Your task to perform on an android device: Search for Mexican restaurants on Maps Image 0: 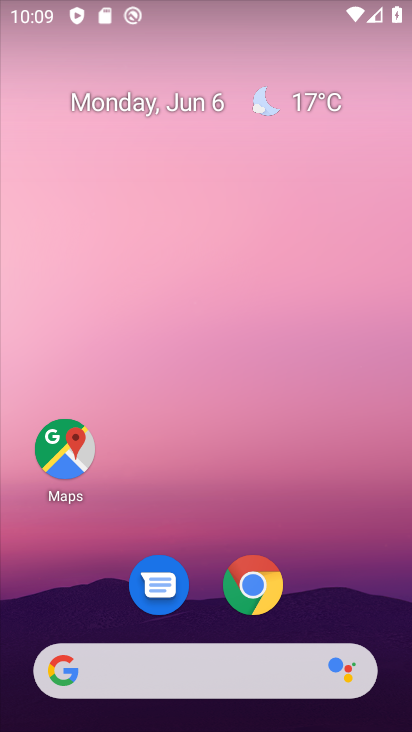
Step 0: click (66, 451)
Your task to perform on an android device: Search for Mexican restaurants on Maps Image 1: 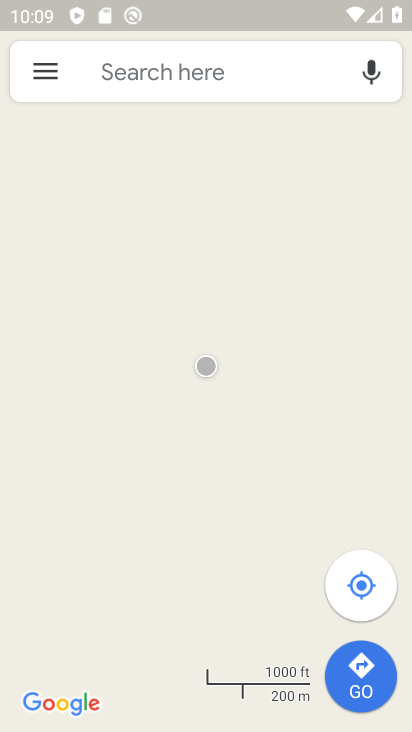
Step 1: click (178, 67)
Your task to perform on an android device: Search for Mexican restaurants on Maps Image 2: 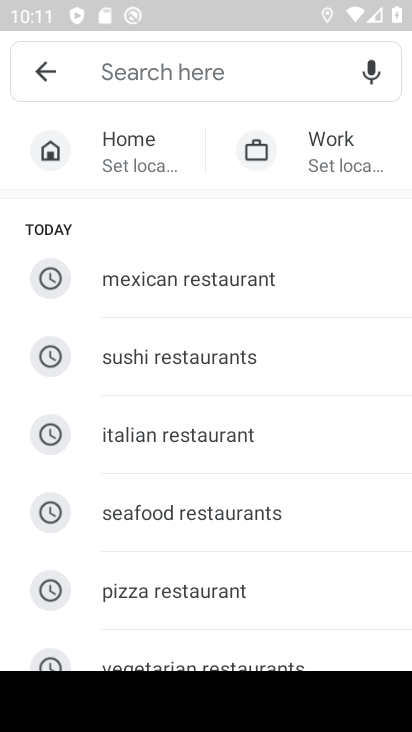
Step 2: click (220, 289)
Your task to perform on an android device: Search for Mexican restaurants on Maps Image 3: 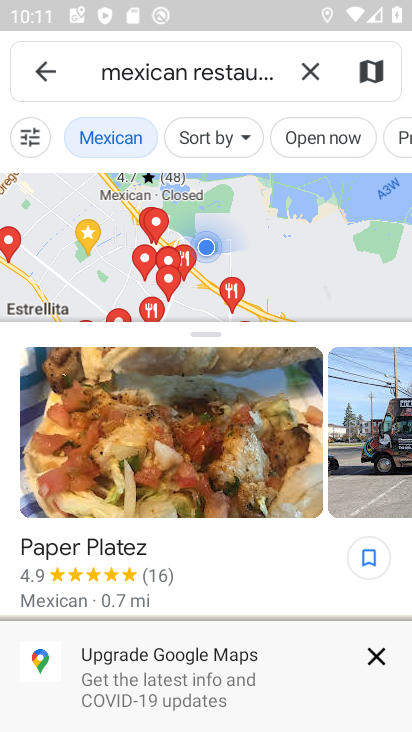
Step 3: task complete